Your task to perform on an android device: open app "The Home Depot" (install if not already installed), go to login, and select forgot password Image 0: 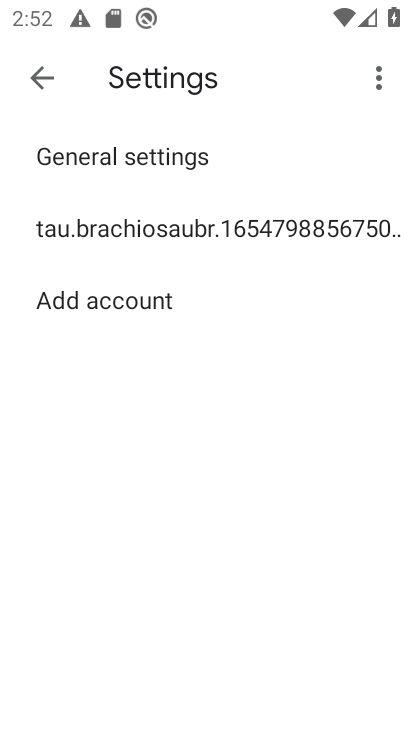
Step 0: press home button
Your task to perform on an android device: open app "The Home Depot" (install if not already installed), go to login, and select forgot password Image 1: 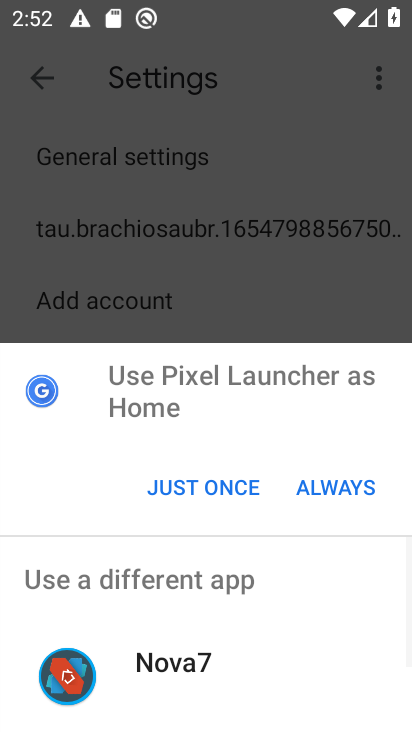
Step 1: click (203, 484)
Your task to perform on an android device: open app "The Home Depot" (install if not already installed), go to login, and select forgot password Image 2: 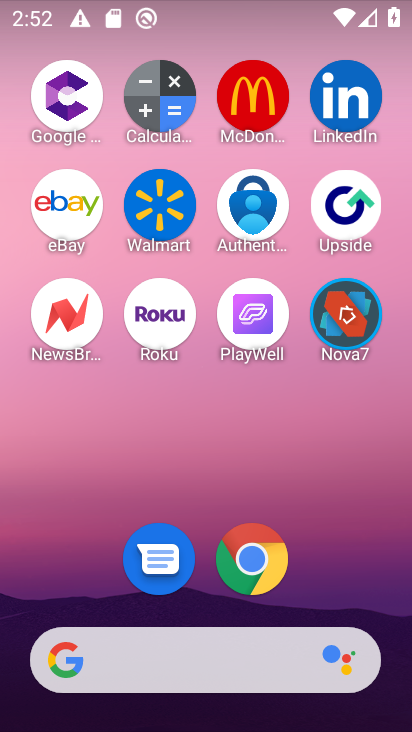
Step 2: drag from (168, 589) to (168, 269)
Your task to perform on an android device: open app "The Home Depot" (install if not already installed), go to login, and select forgot password Image 3: 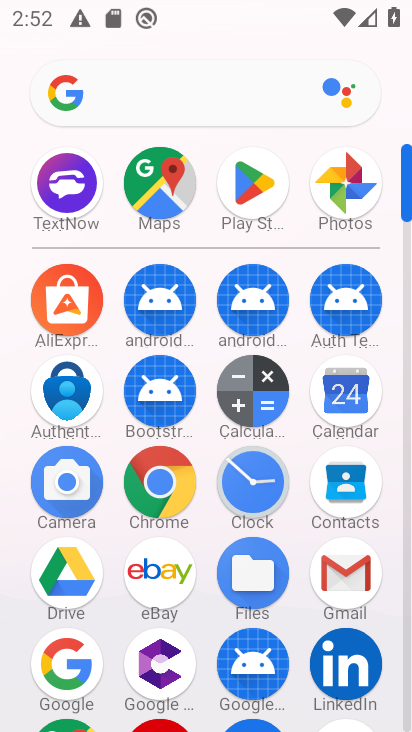
Step 3: click (246, 187)
Your task to perform on an android device: open app "The Home Depot" (install if not already installed), go to login, and select forgot password Image 4: 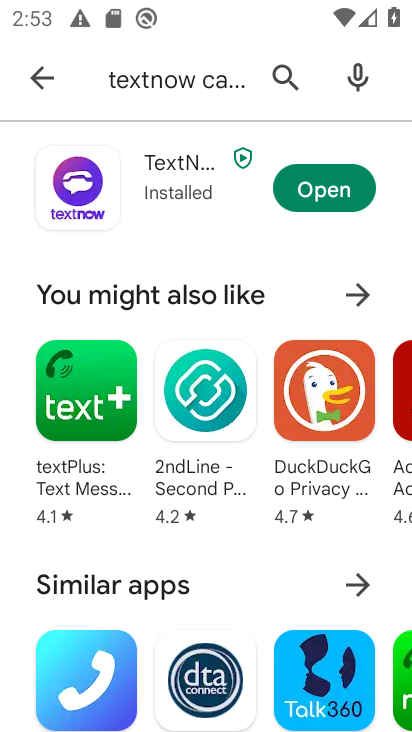
Step 4: click (291, 75)
Your task to perform on an android device: open app "The Home Depot" (install if not already installed), go to login, and select forgot password Image 5: 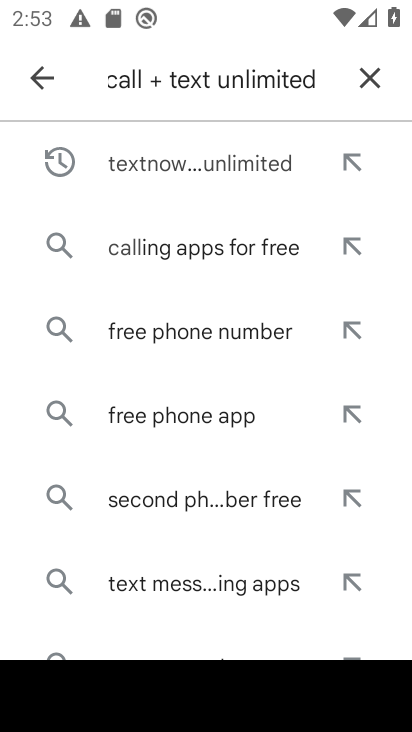
Step 5: click (369, 78)
Your task to perform on an android device: open app "The Home Depot" (install if not already installed), go to login, and select forgot password Image 6: 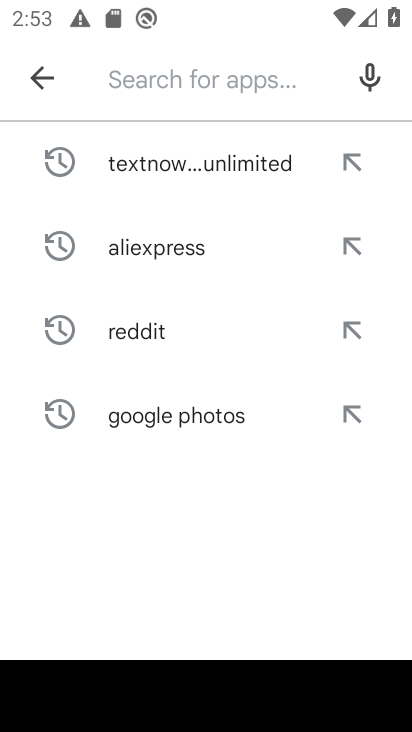
Step 6: type "The Home Depot"
Your task to perform on an android device: open app "The Home Depot" (install if not already installed), go to login, and select forgot password Image 7: 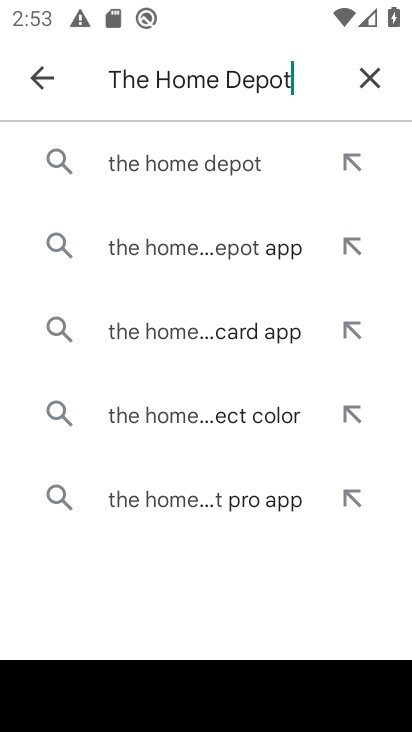
Step 7: click (137, 152)
Your task to perform on an android device: open app "The Home Depot" (install if not already installed), go to login, and select forgot password Image 8: 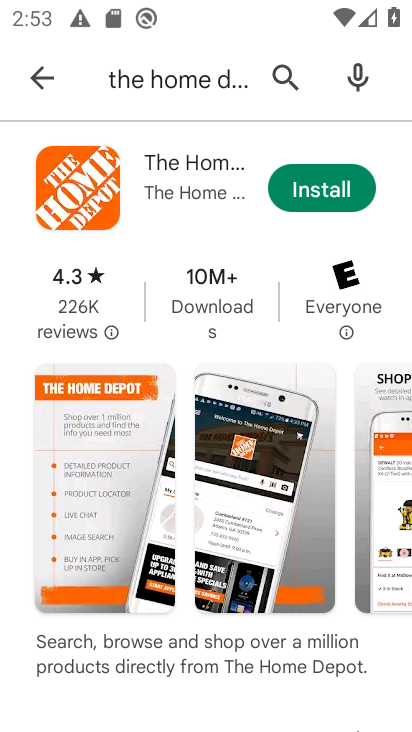
Step 8: click (330, 197)
Your task to perform on an android device: open app "The Home Depot" (install if not already installed), go to login, and select forgot password Image 9: 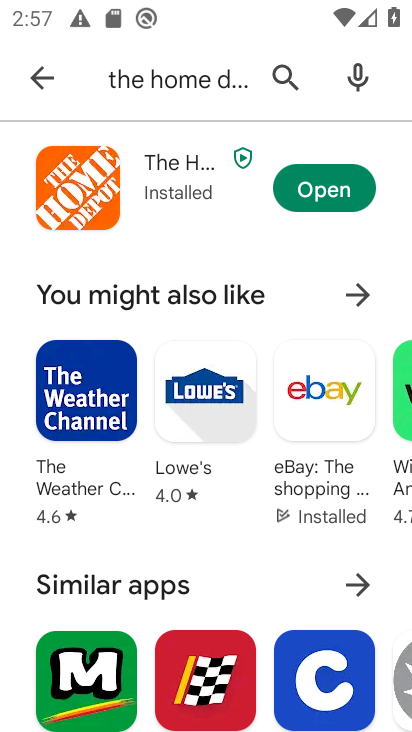
Step 9: click (307, 201)
Your task to perform on an android device: open app "The Home Depot" (install if not already installed), go to login, and select forgot password Image 10: 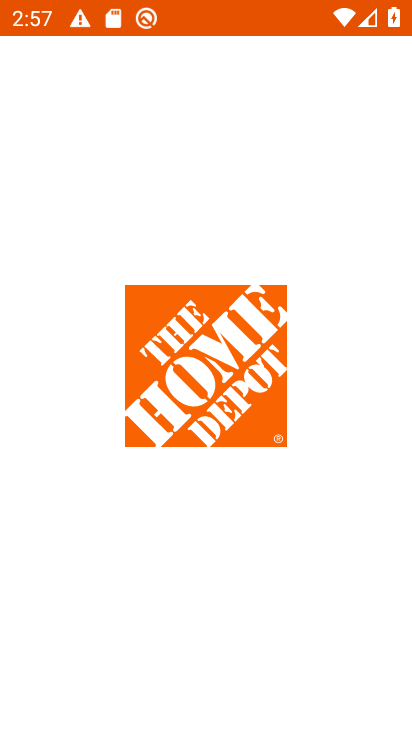
Step 10: task complete